Your task to perform on an android device: change keyboard looks Image 0: 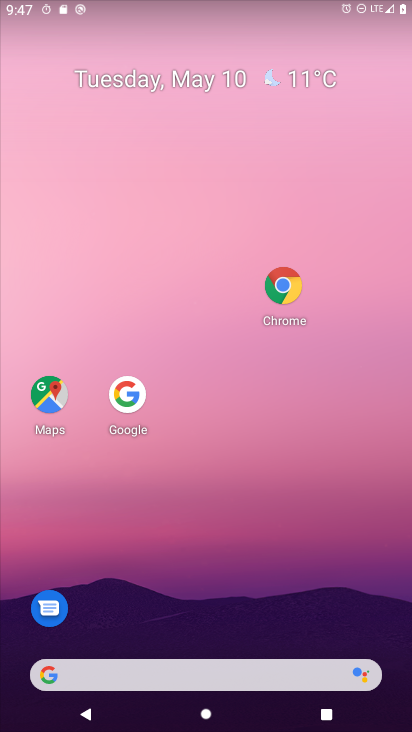
Step 0: press home button
Your task to perform on an android device: change keyboard looks Image 1: 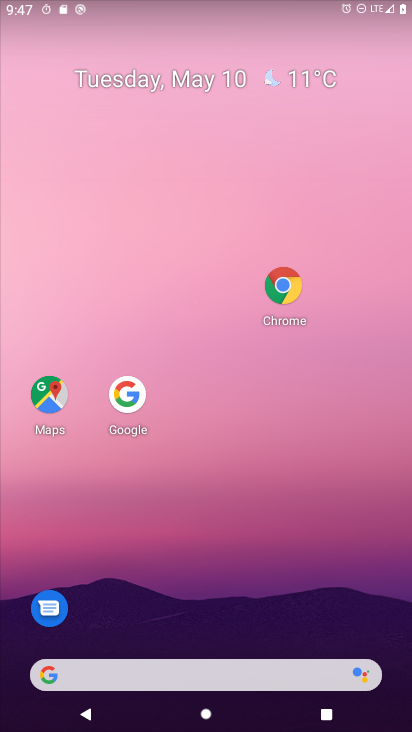
Step 1: drag from (176, 680) to (241, 131)
Your task to perform on an android device: change keyboard looks Image 2: 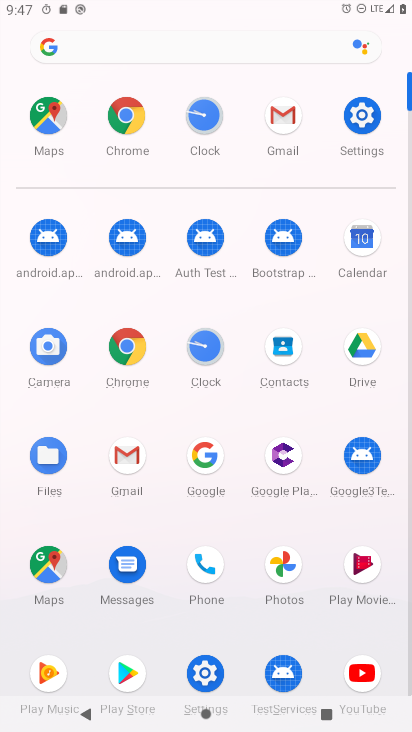
Step 2: click (360, 119)
Your task to perform on an android device: change keyboard looks Image 3: 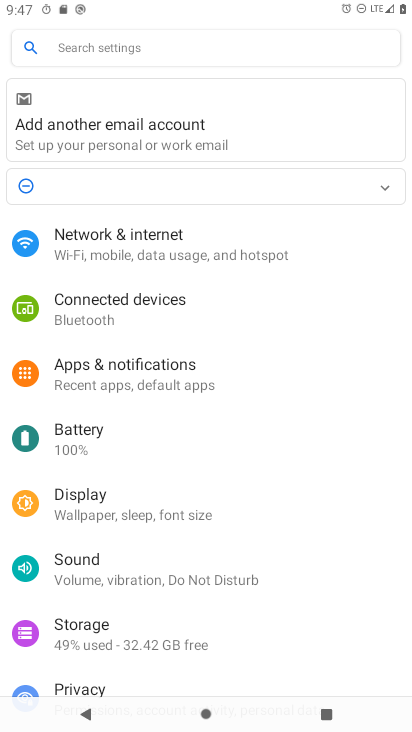
Step 3: drag from (144, 664) to (295, 103)
Your task to perform on an android device: change keyboard looks Image 4: 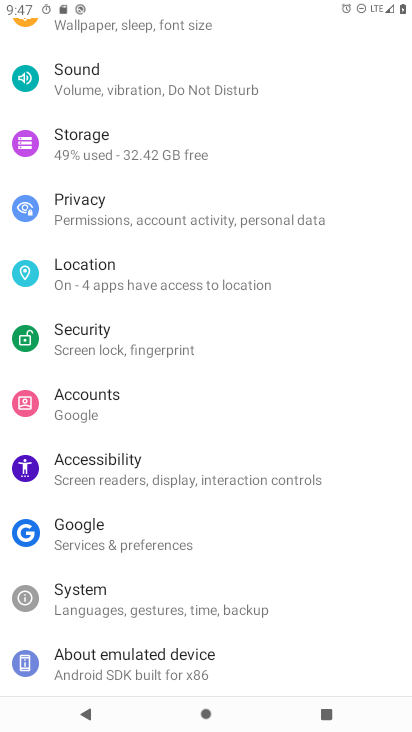
Step 4: click (182, 611)
Your task to perform on an android device: change keyboard looks Image 5: 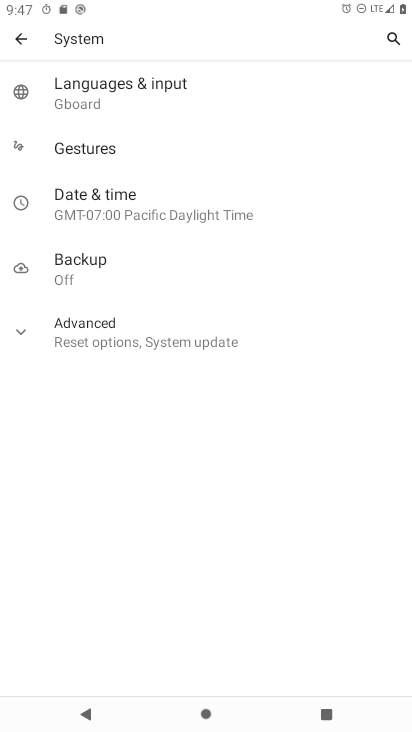
Step 5: click (114, 99)
Your task to perform on an android device: change keyboard looks Image 6: 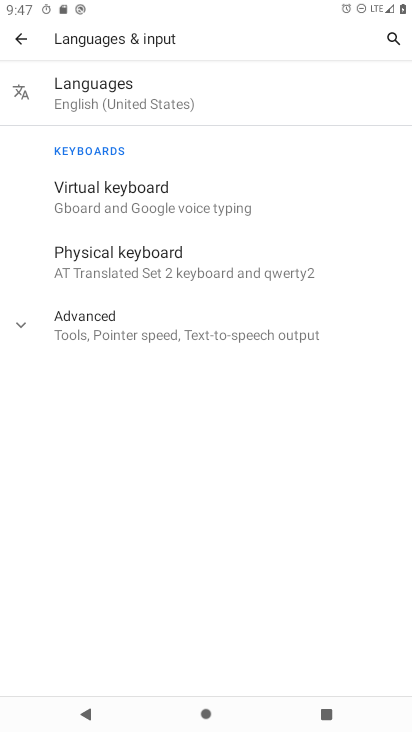
Step 6: click (104, 197)
Your task to perform on an android device: change keyboard looks Image 7: 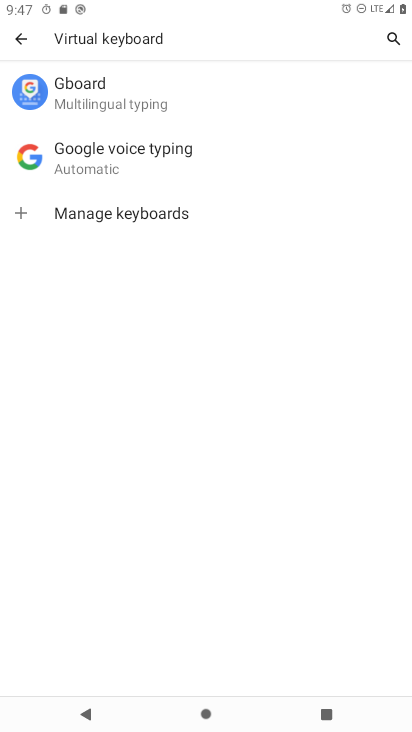
Step 7: click (88, 88)
Your task to perform on an android device: change keyboard looks Image 8: 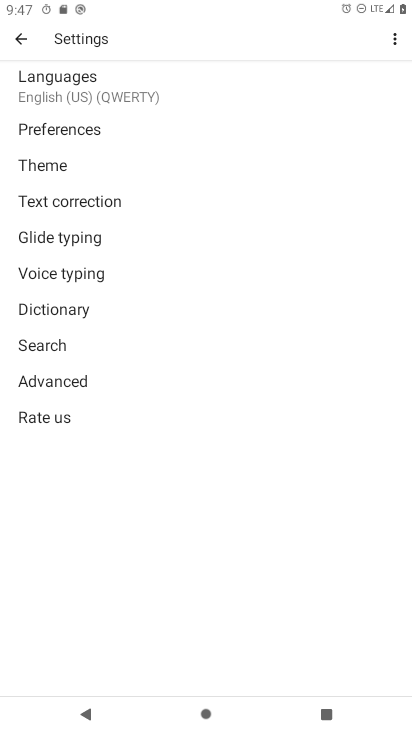
Step 8: click (69, 172)
Your task to perform on an android device: change keyboard looks Image 9: 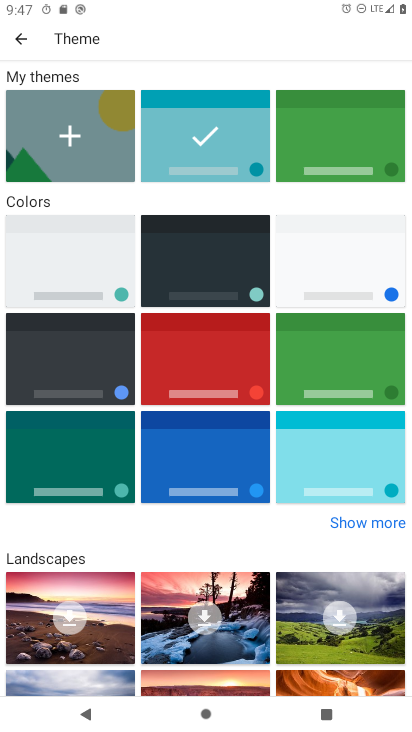
Step 9: click (209, 364)
Your task to perform on an android device: change keyboard looks Image 10: 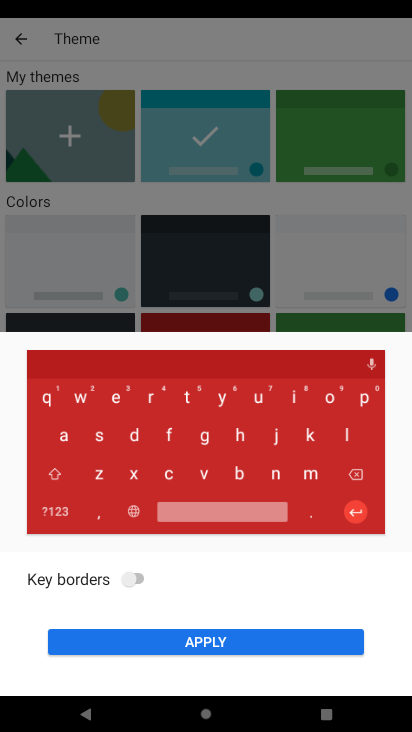
Step 10: click (195, 637)
Your task to perform on an android device: change keyboard looks Image 11: 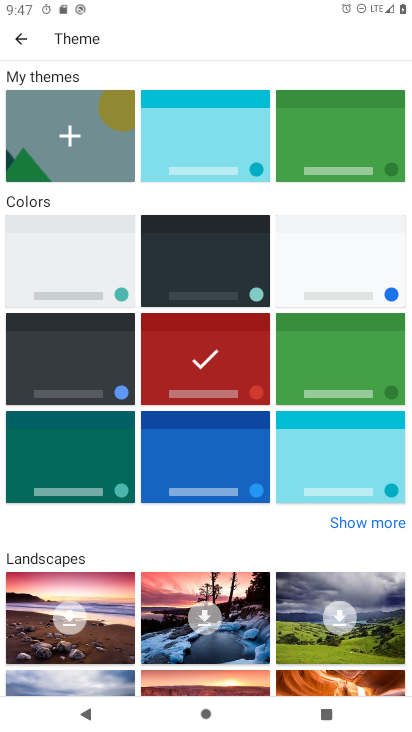
Step 11: task complete